Your task to perform on an android device: Toggle the flashlight Image 0: 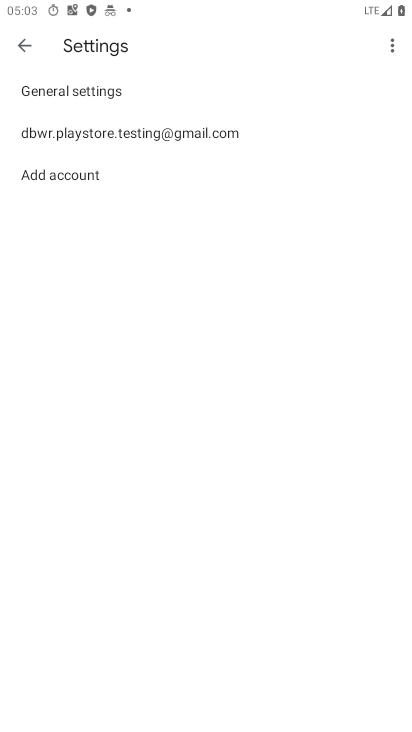
Step 0: press home button
Your task to perform on an android device: Toggle the flashlight Image 1: 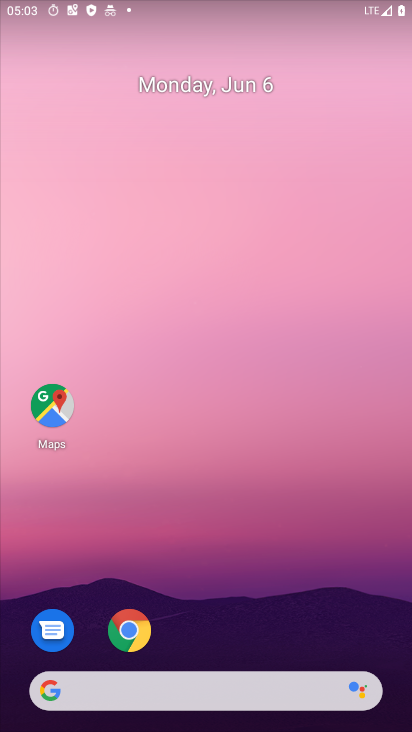
Step 1: task complete